Your task to perform on an android device: turn notification dots on Image 0: 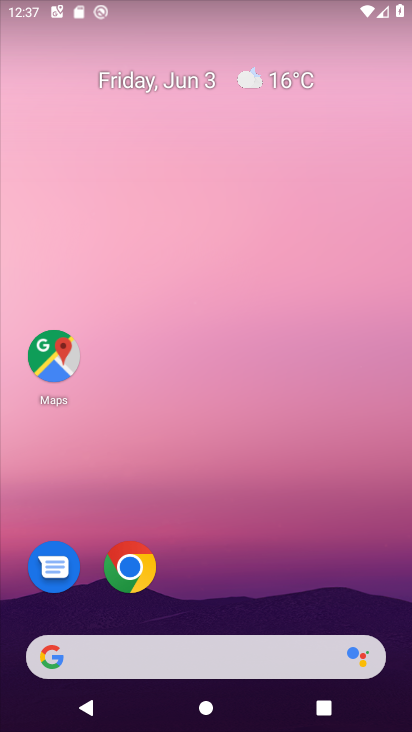
Step 0: drag from (230, 306) to (238, 267)
Your task to perform on an android device: turn notification dots on Image 1: 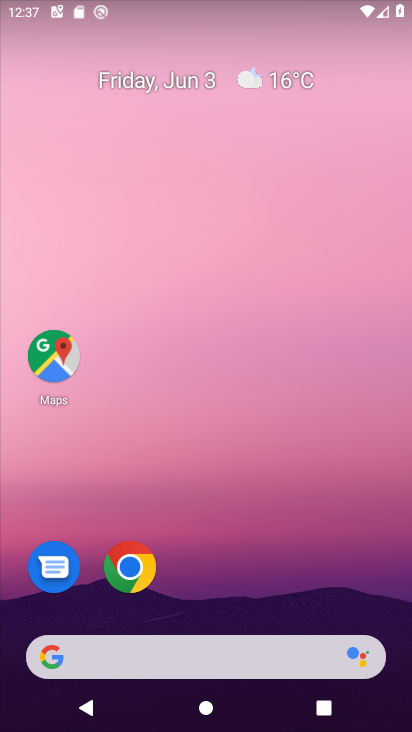
Step 1: drag from (285, 544) to (300, 29)
Your task to perform on an android device: turn notification dots on Image 2: 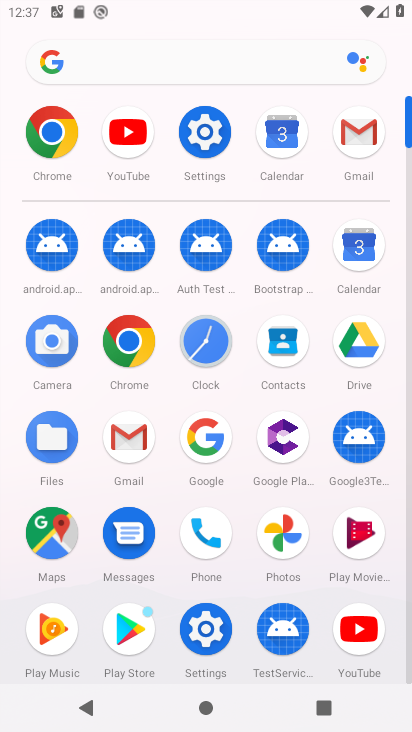
Step 2: click (196, 143)
Your task to perform on an android device: turn notification dots on Image 3: 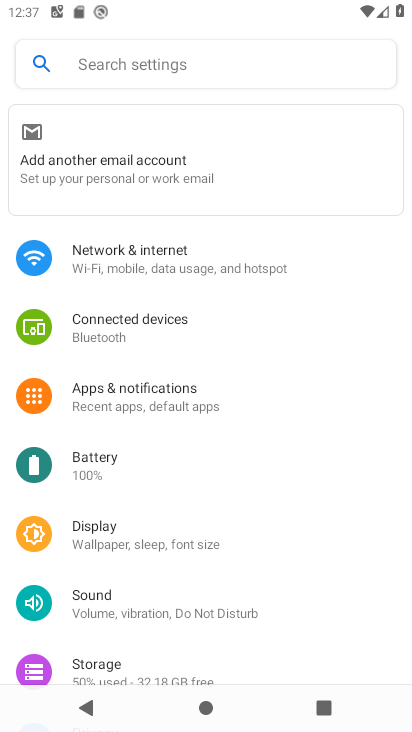
Step 3: click (177, 381)
Your task to perform on an android device: turn notification dots on Image 4: 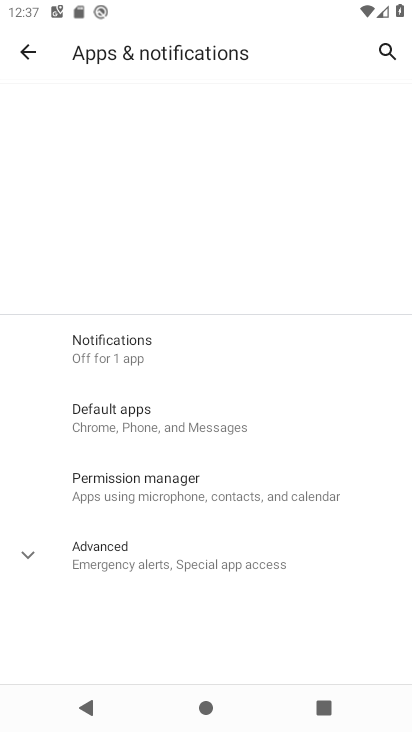
Step 4: click (155, 343)
Your task to perform on an android device: turn notification dots on Image 5: 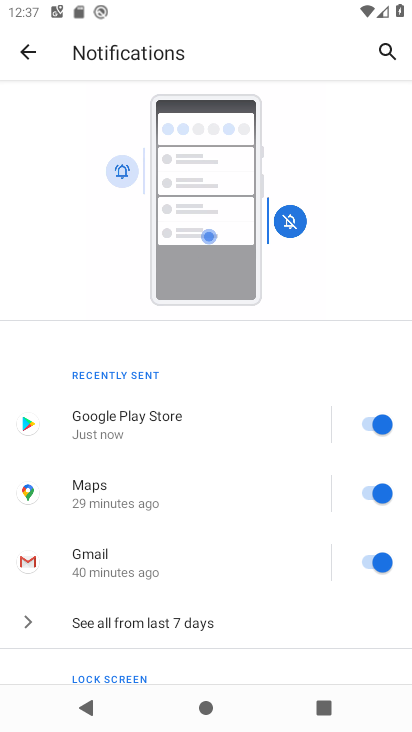
Step 5: drag from (153, 665) to (170, 251)
Your task to perform on an android device: turn notification dots on Image 6: 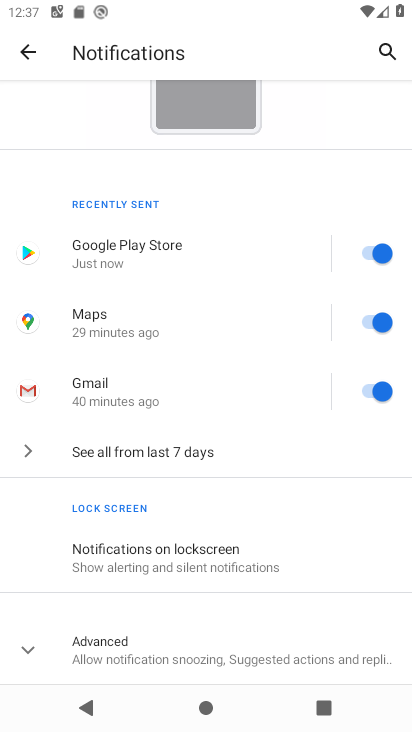
Step 6: click (176, 662)
Your task to perform on an android device: turn notification dots on Image 7: 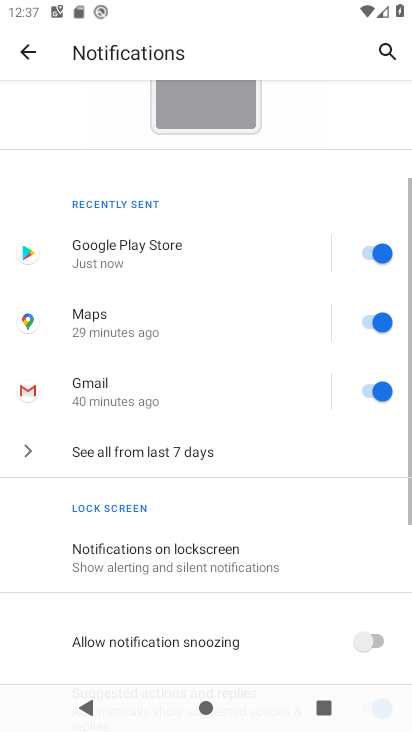
Step 7: task complete